Your task to perform on an android device: Go to sound settings Image 0: 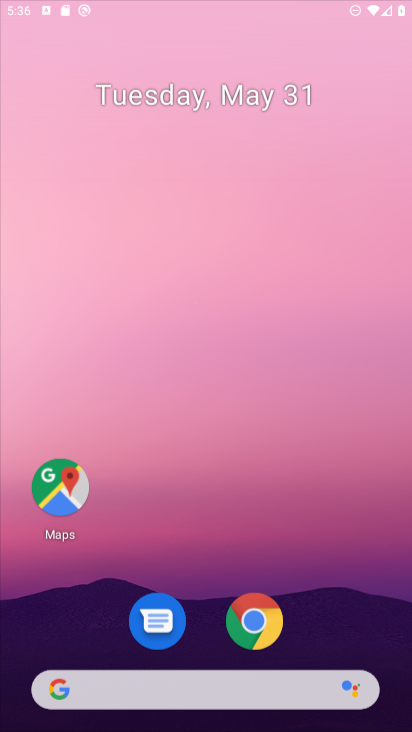
Step 0: drag from (319, 691) to (331, 5)
Your task to perform on an android device: Go to sound settings Image 1: 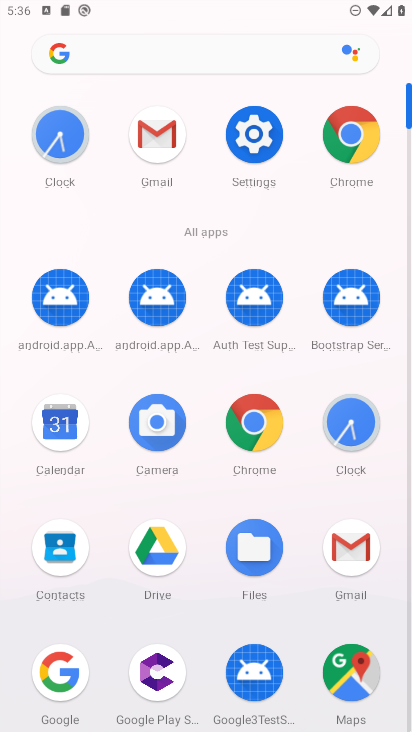
Step 1: click (257, 166)
Your task to perform on an android device: Go to sound settings Image 2: 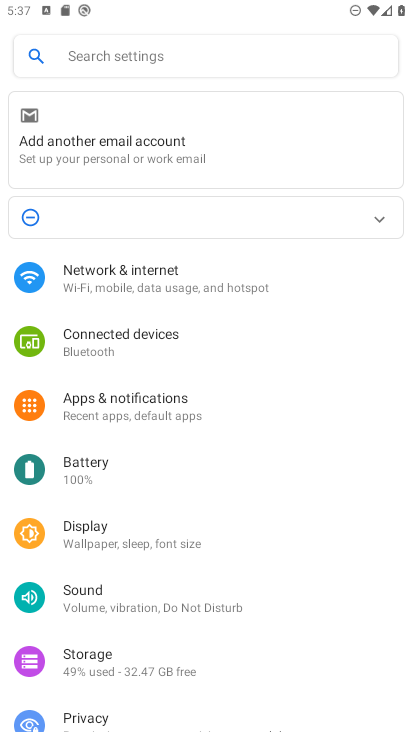
Step 2: click (142, 602)
Your task to perform on an android device: Go to sound settings Image 3: 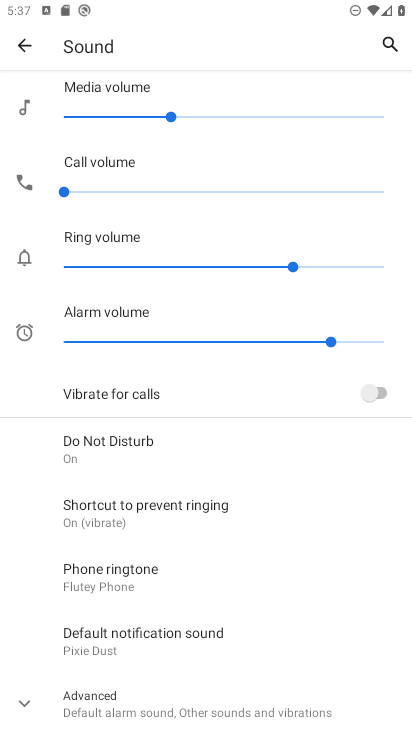
Step 3: task complete